Your task to perform on an android device: turn on wifi Image 0: 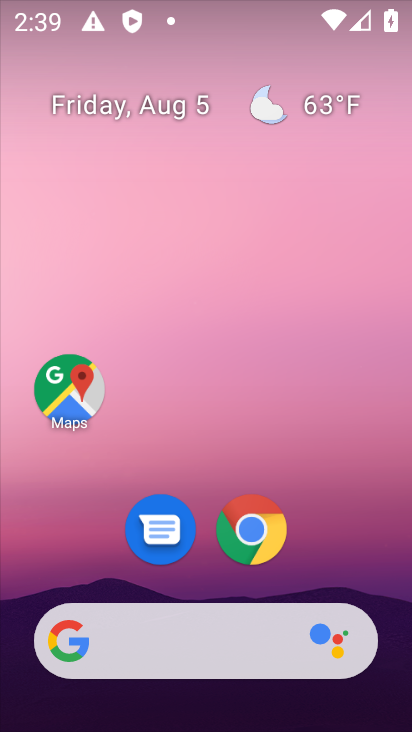
Step 0: drag from (202, 5) to (228, 513)
Your task to perform on an android device: turn on wifi Image 1: 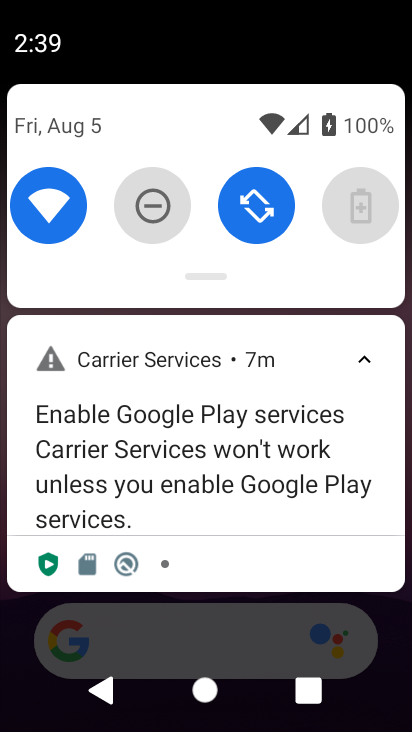
Step 1: task complete